Your task to perform on an android device: What's the price of the LG TV? Image 0: 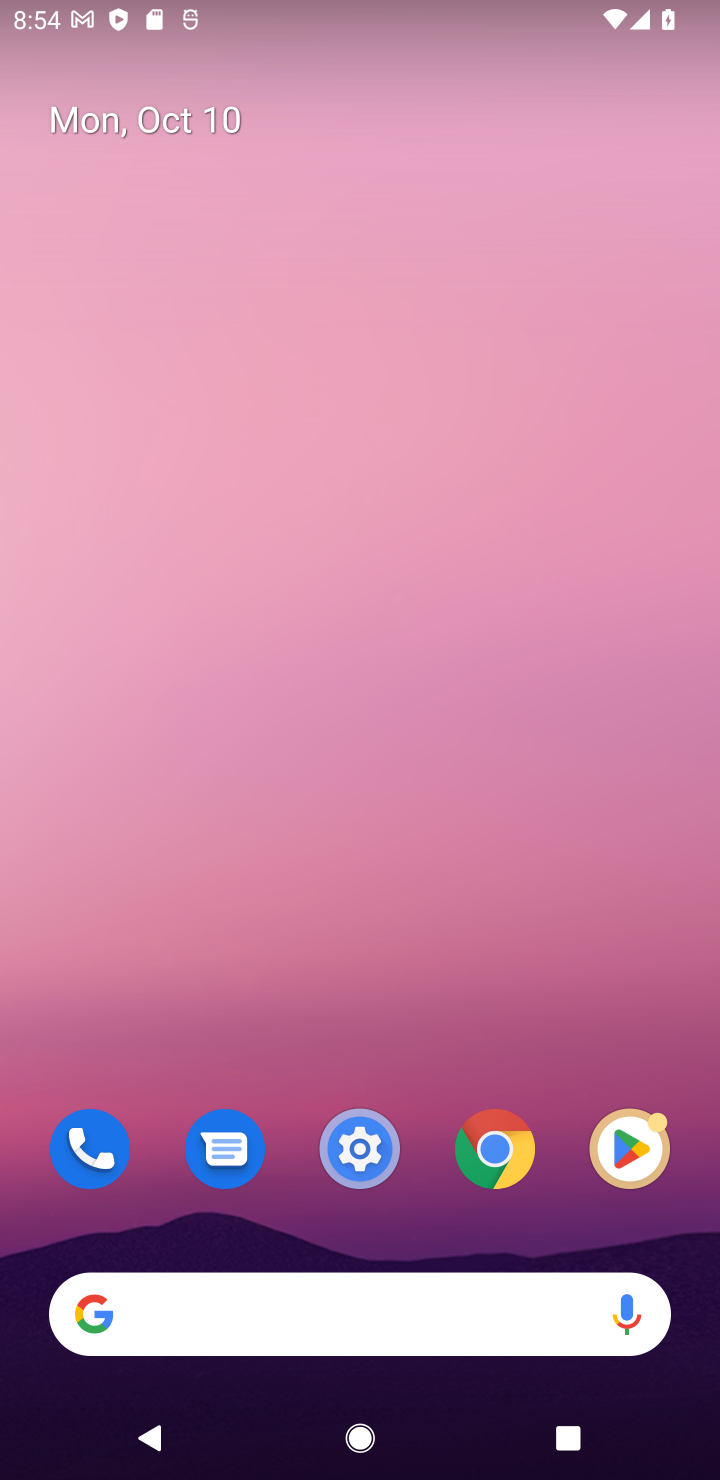
Step 0: click (336, 1295)
Your task to perform on an android device: What's the price of the LG TV? Image 1: 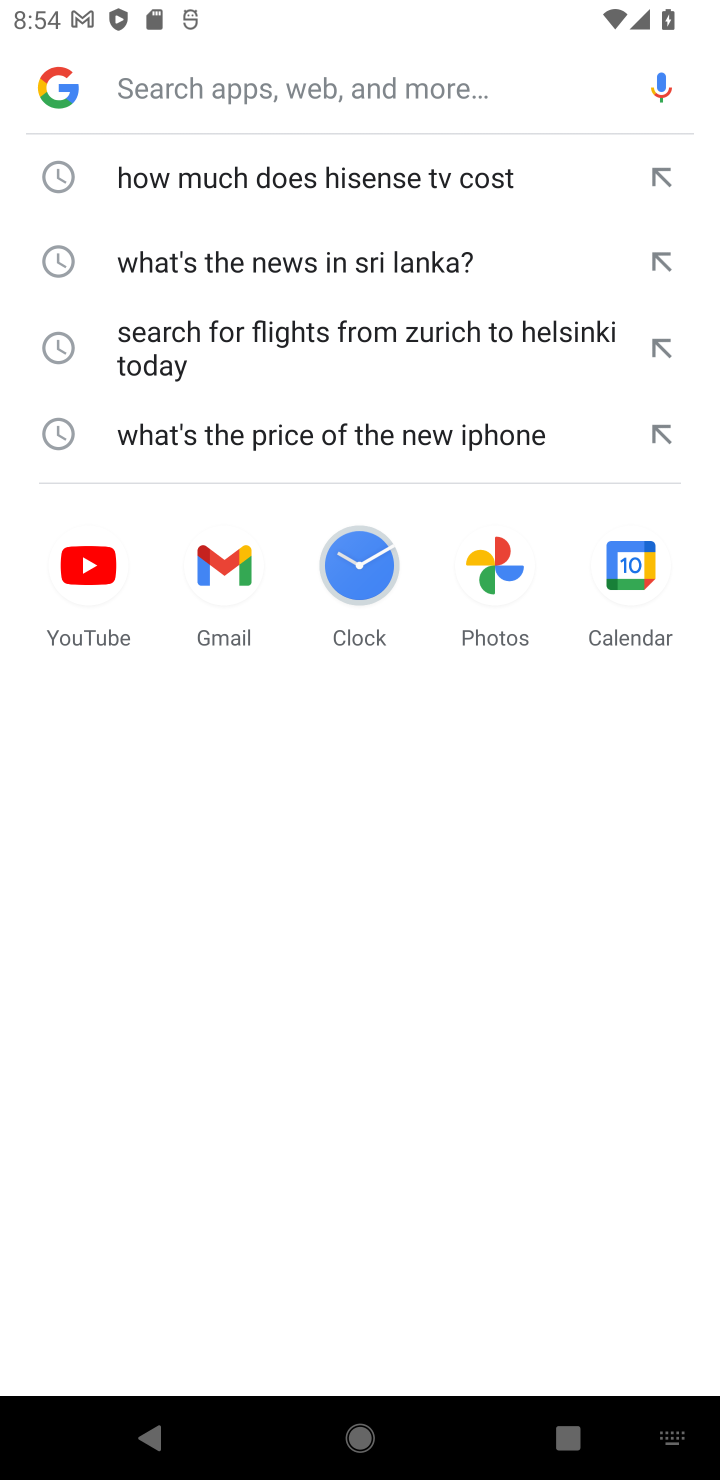
Step 1: type "What's the price of the LG TV?"
Your task to perform on an android device: What's the price of the LG TV? Image 2: 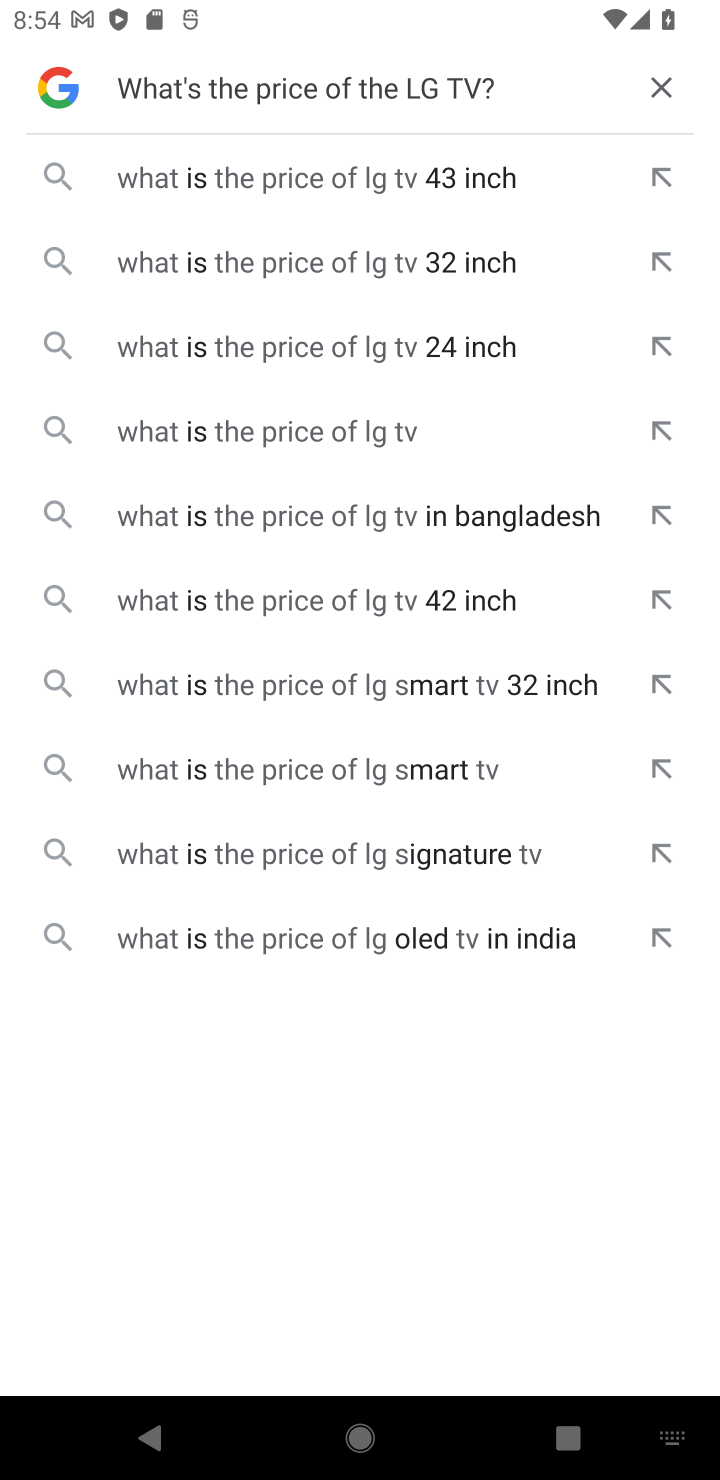
Step 2: click (283, 178)
Your task to perform on an android device: What's the price of the LG TV? Image 3: 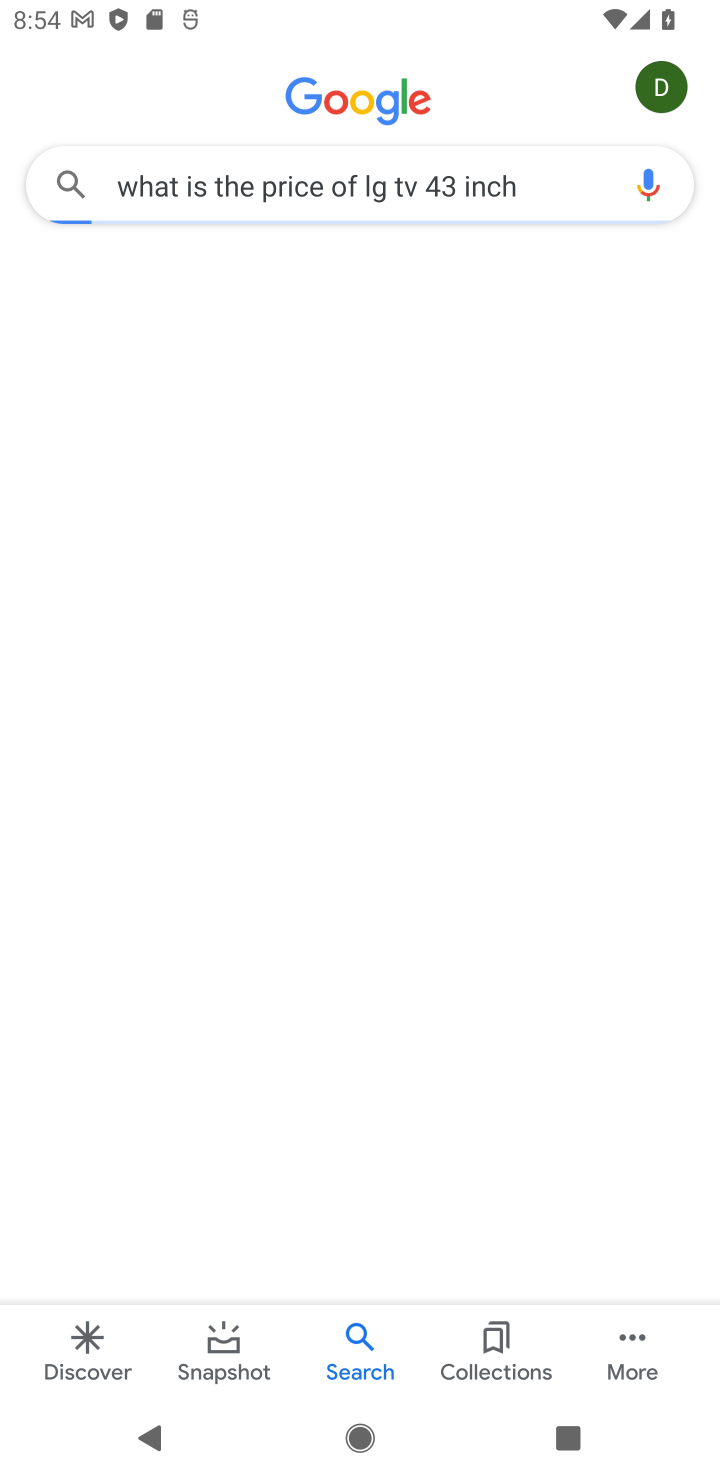
Step 3: task complete